Your task to perform on an android device: clear history in the chrome app Image 0: 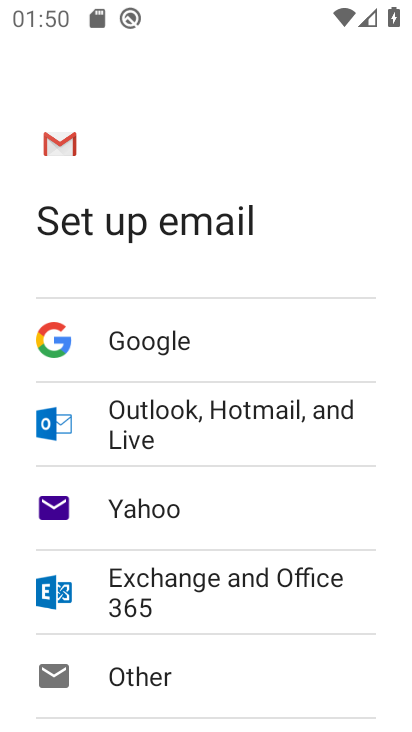
Step 0: press home button
Your task to perform on an android device: clear history in the chrome app Image 1: 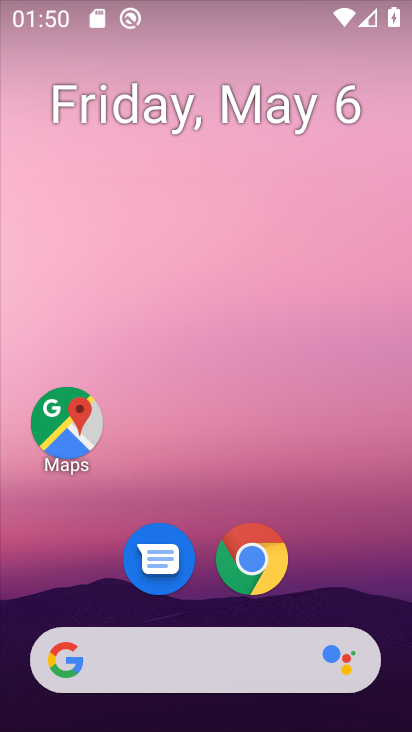
Step 1: drag from (294, 673) to (337, 11)
Your task to perform on an android device: clear history in the chrome app Image 2: 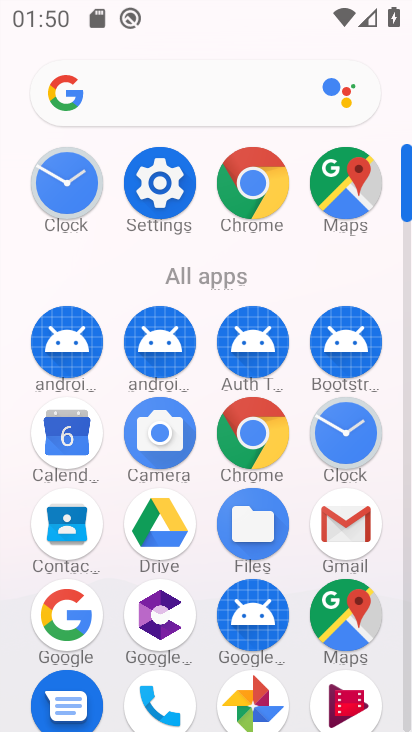
Step 2: click (265, 430)
Your task to perform on an android device: clear history in the chrome app Image 3: 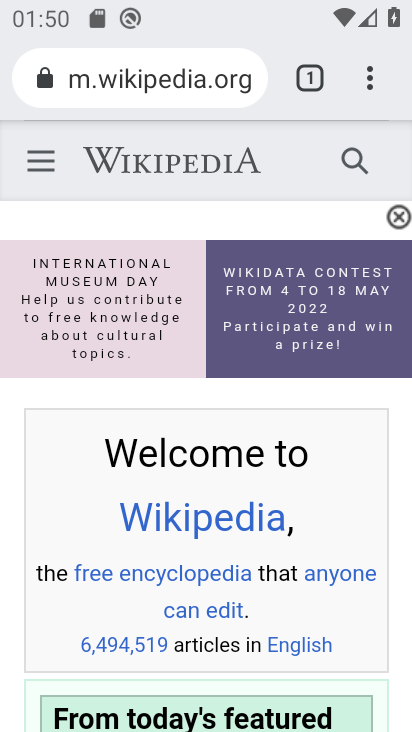
Step 3: drag from (366, 79) to (136, 468)
Your task to perform on an android device: clear history in the chrome app Image 4: 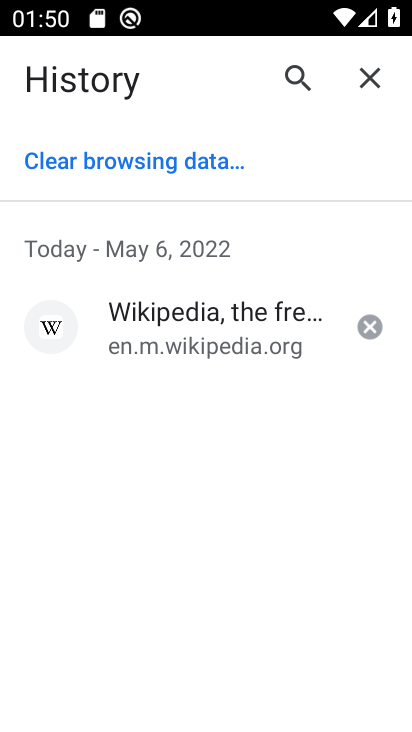
Step 4: click (207, 148)
Your task to perform on an android device: clear history in the chrome app Image 5: 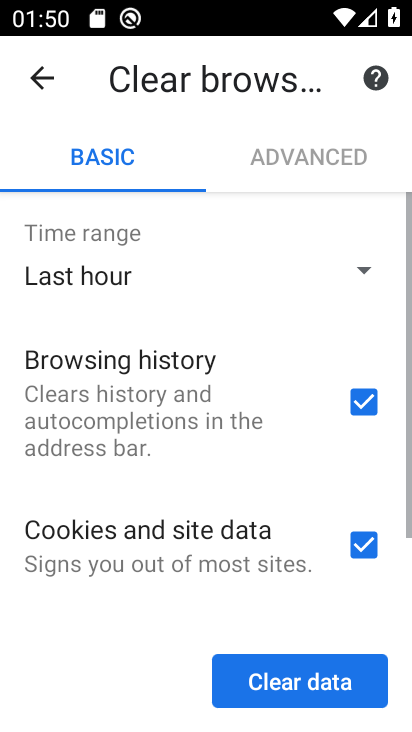
Step 5: click (297, 674)
Your task to perform on an android device: clear history in the chrome app Image 6: 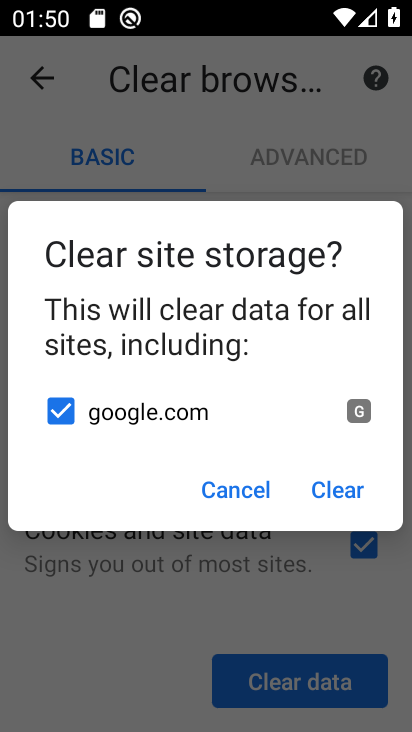
Step 6: click (324, 494)
Your task to perform on an android device: clear history in the chrome app Image 7: 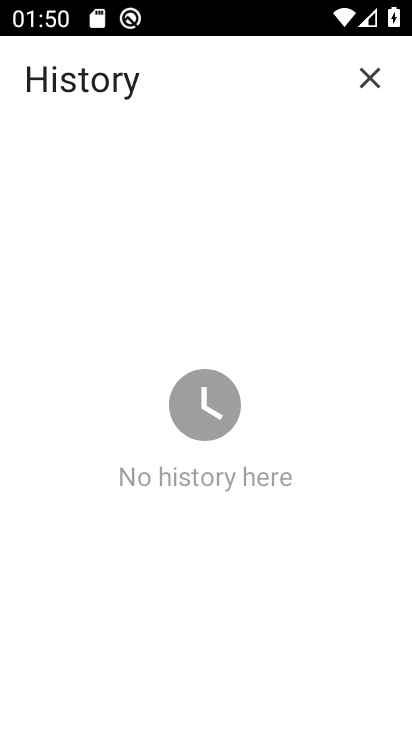
Step 7: task complete